Your task to perform on an android device: Empty the shopping cart on walmart. Search for "logitech g pro" on walmart, select the first entry, add it to the cart, then select checkout. Image 0: 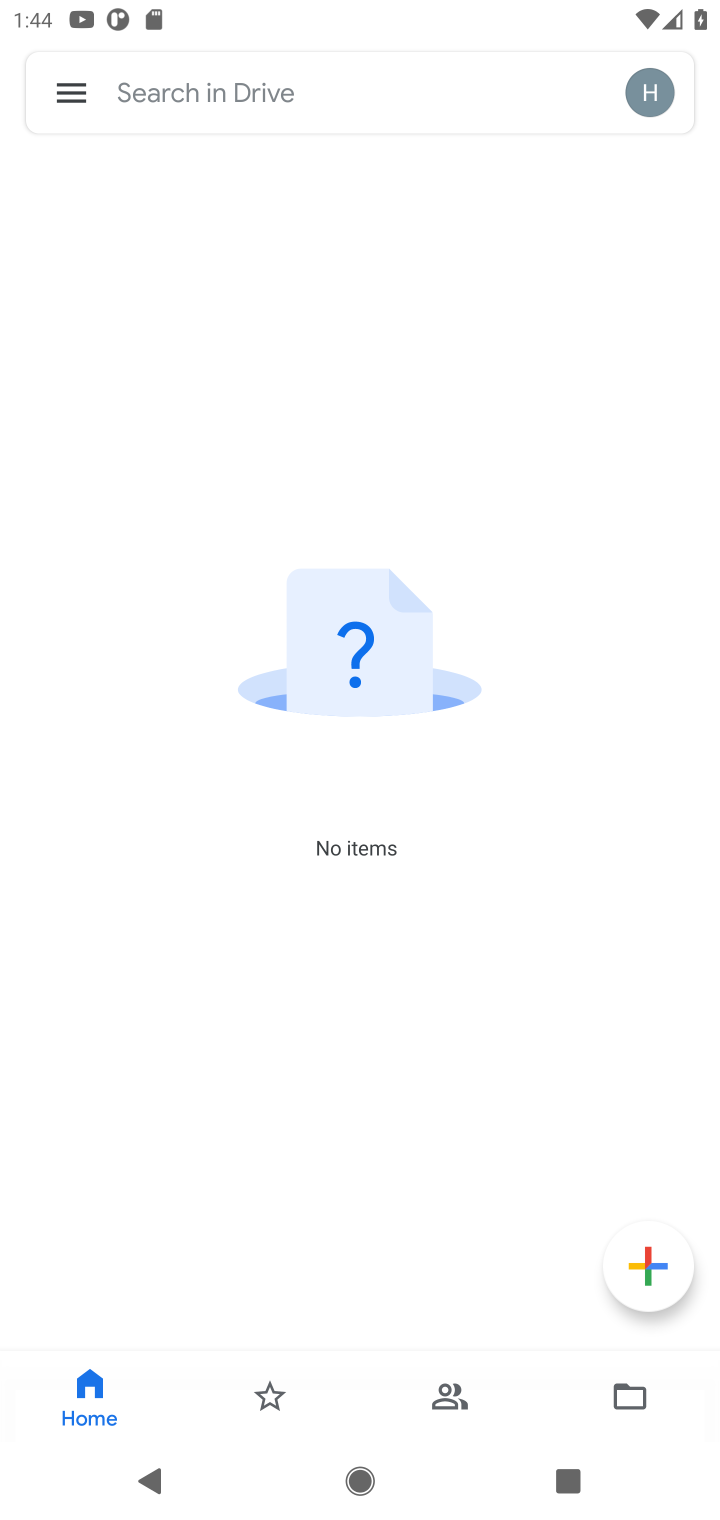
Step 0: press home button
Your task to perform on an android device: Empty the shopping cart on walmart. Search for "logitech g pro" on walmart, select the first entry, add it to the cart, then select checkout. Image 1: 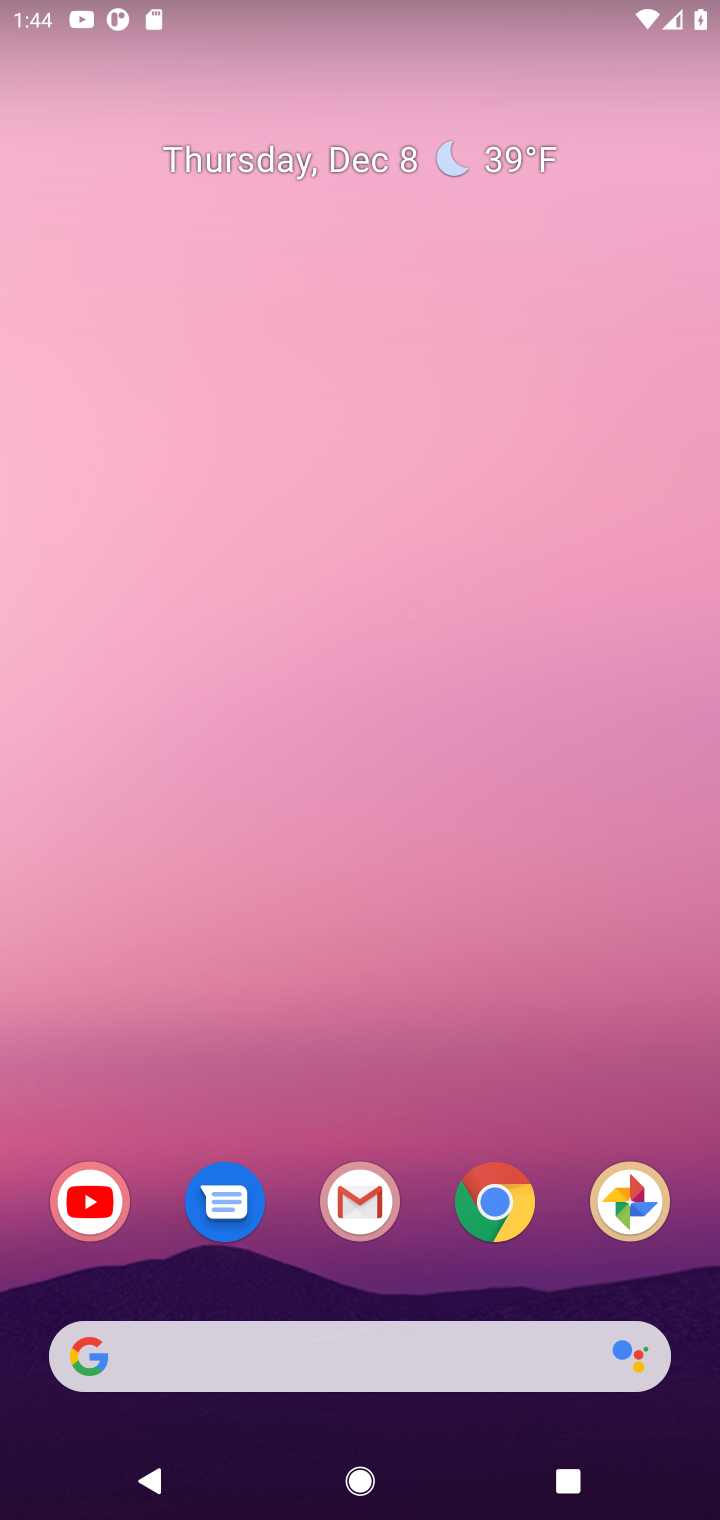
Step 1: click (499, 1201)
Your task to perform on an android device: Empty the shopping cart on walmart. Search for "logitech g pro" on walmart, select the first entry, add it to the cart, then select checkout. Image 2: 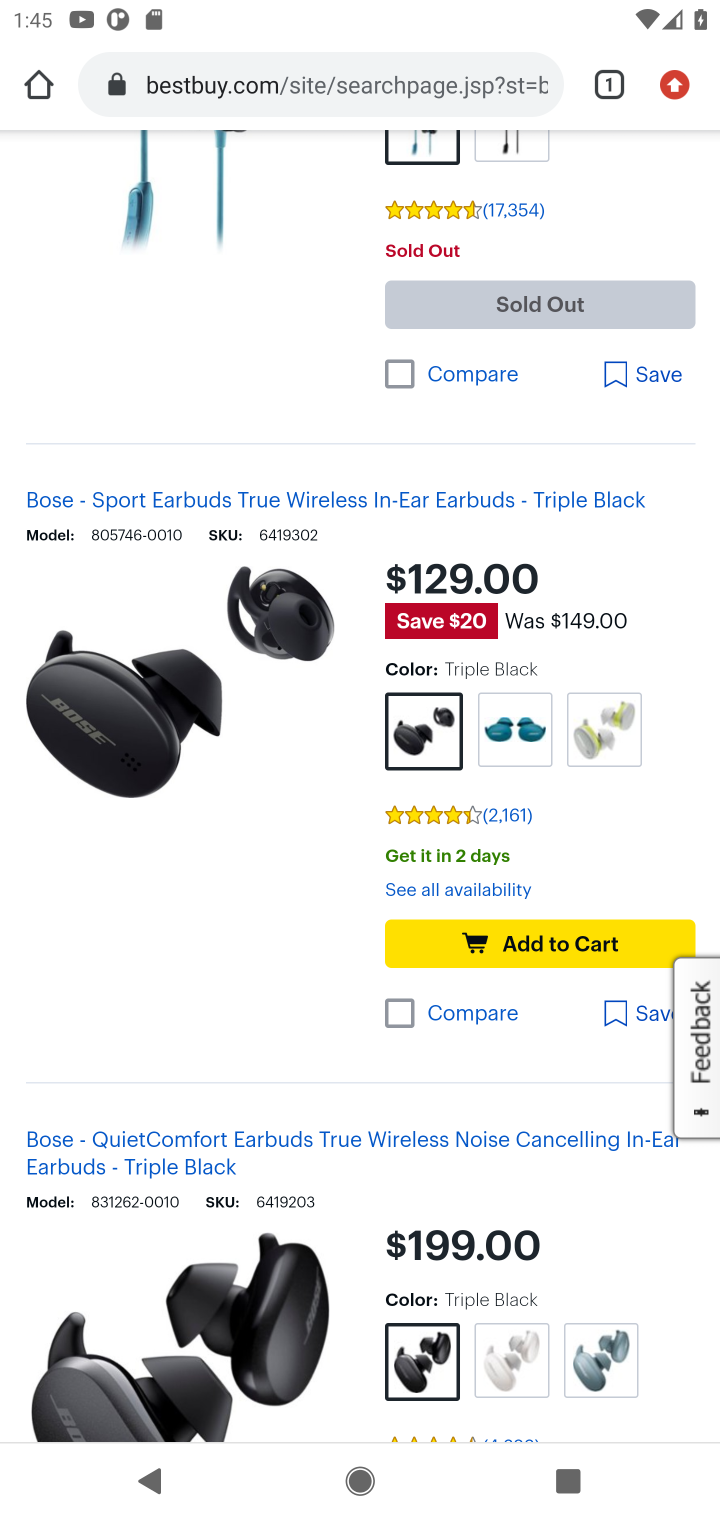
Step 2: click (293, 81)
Your task to perform on an android device: Empty the shopping cart on walmart. Search for "logitech g pro" on walmart, select the first entry, add it to the cart, then select checkout. Image 3: 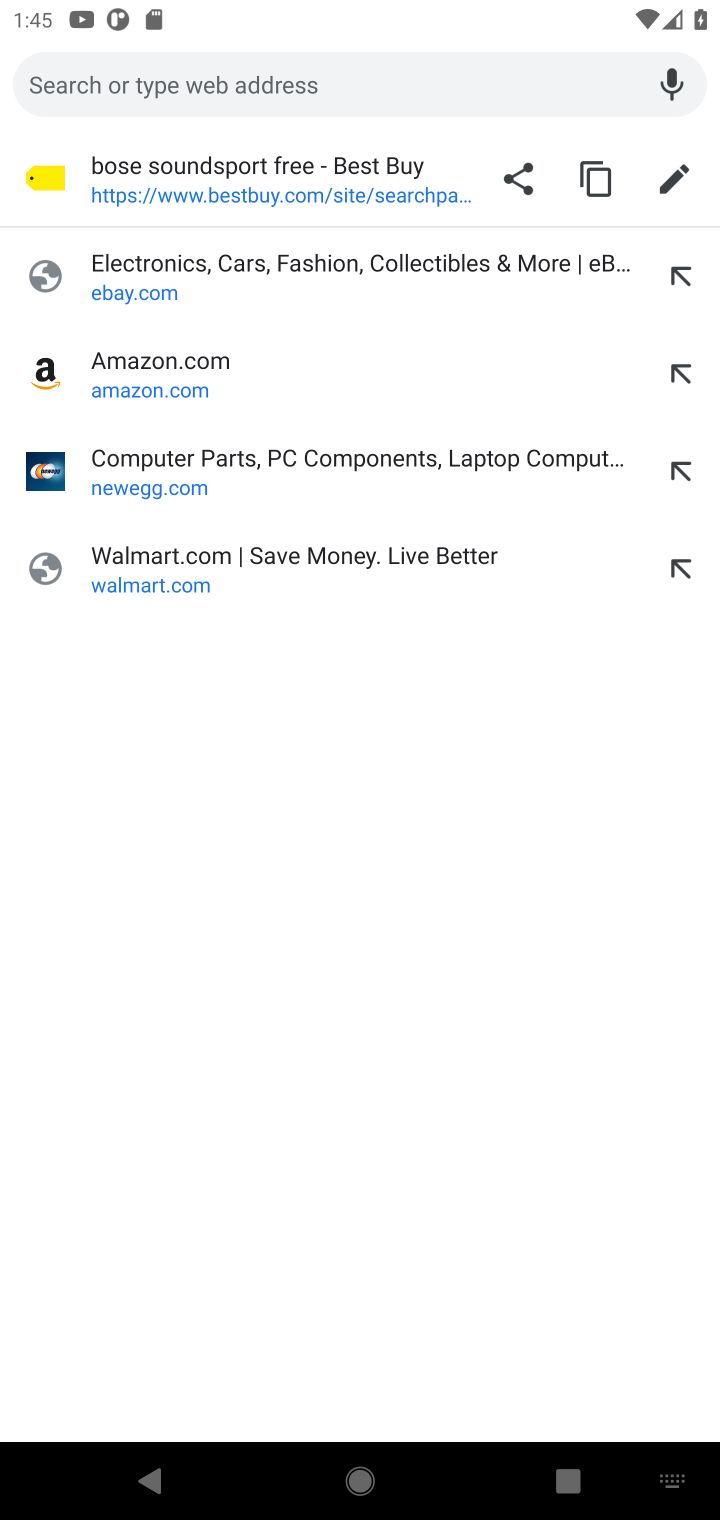
Step 3: click (269, 544)
Your task to perform on an android device: Empty the shopping cart on walmart. Search for "logitech g pro" on walmart, select the first entry, add it to the cart, then select checkout. Image 4: 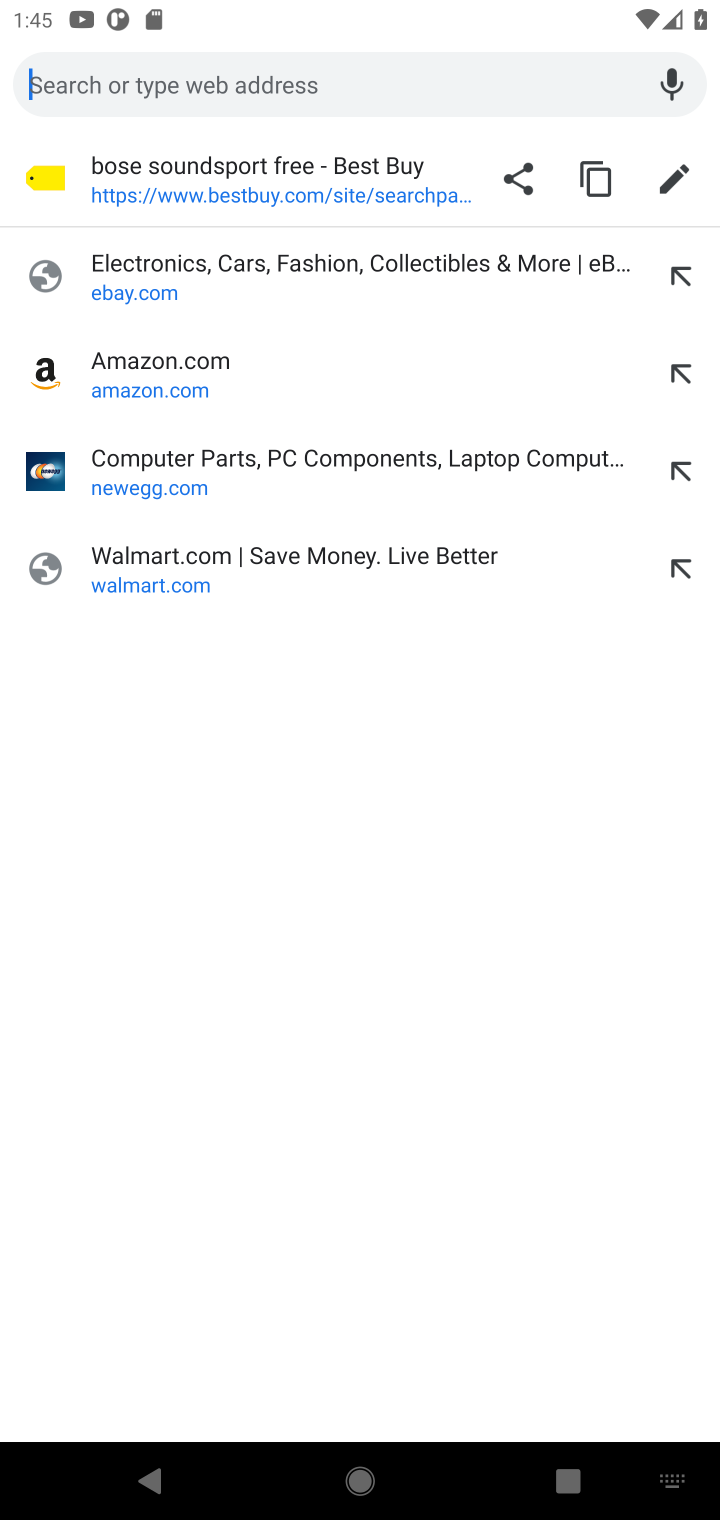
Step 4: click (194, 546)
Your task to perform on an android device: Empty the shopping cart on walmart. Search for "logitech g pro" on walmart, select the first entry, add it to the cart, then select checkout. Image 5: 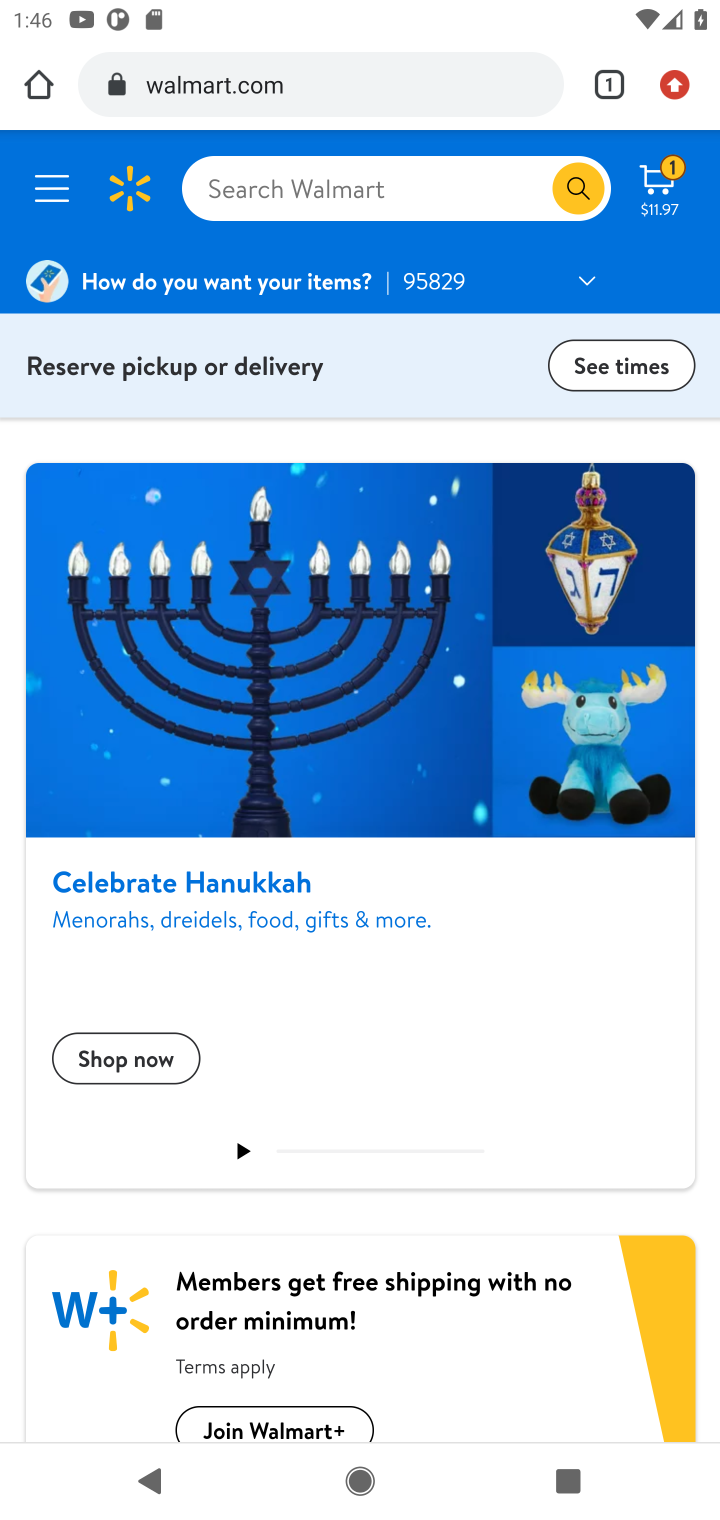
Step 5: click (665, 199)
Your task to perform on an android device: Empty the shopping cart on walmart. Search for "logitech g pro" on walmart, select the first entry, add it to the cart, then select checkout. Image 6: 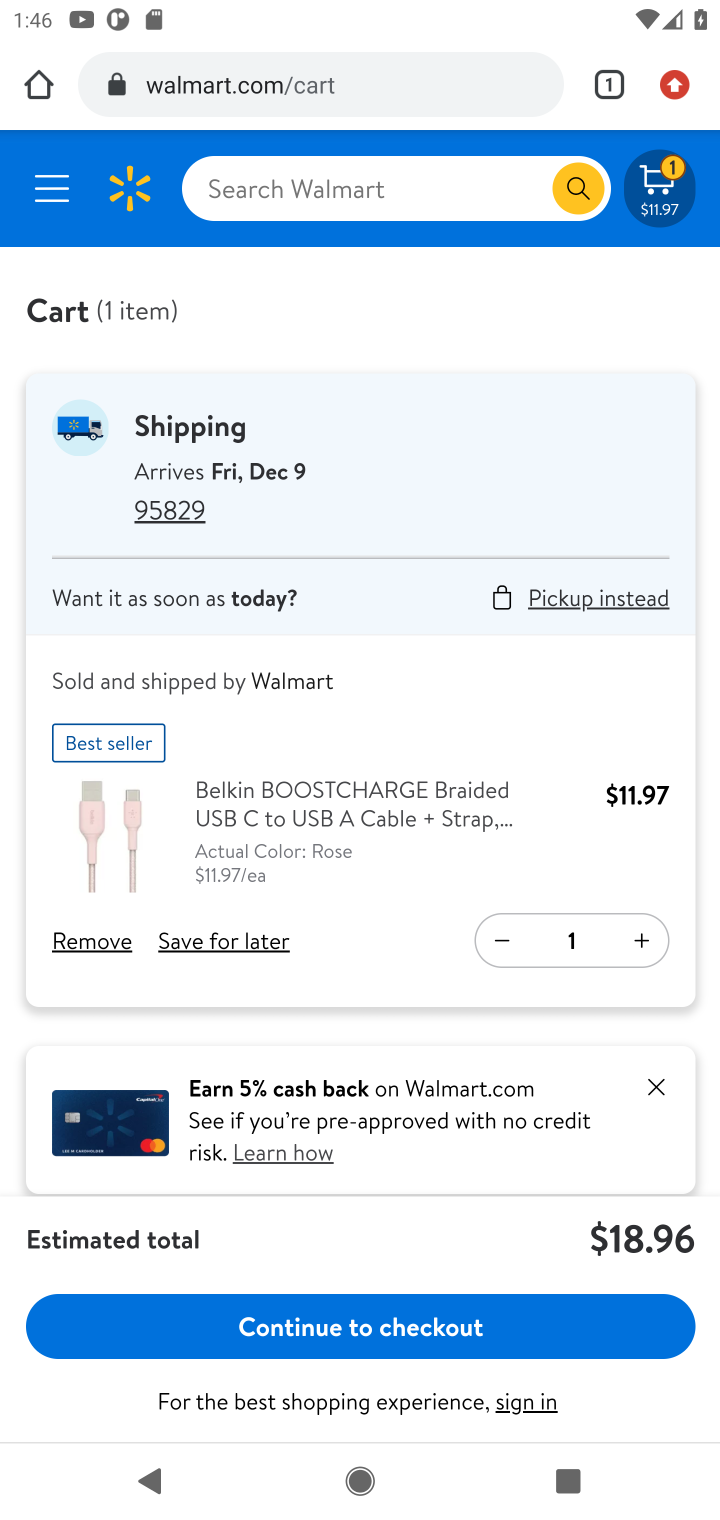
Step 6: click (105, 941)
Your task to perform on an android device: Empty the shopping cart on walmart. Search for "logitech g pro" on walmart, select the first entry, add it to the cart, then select checkout. Image 7: 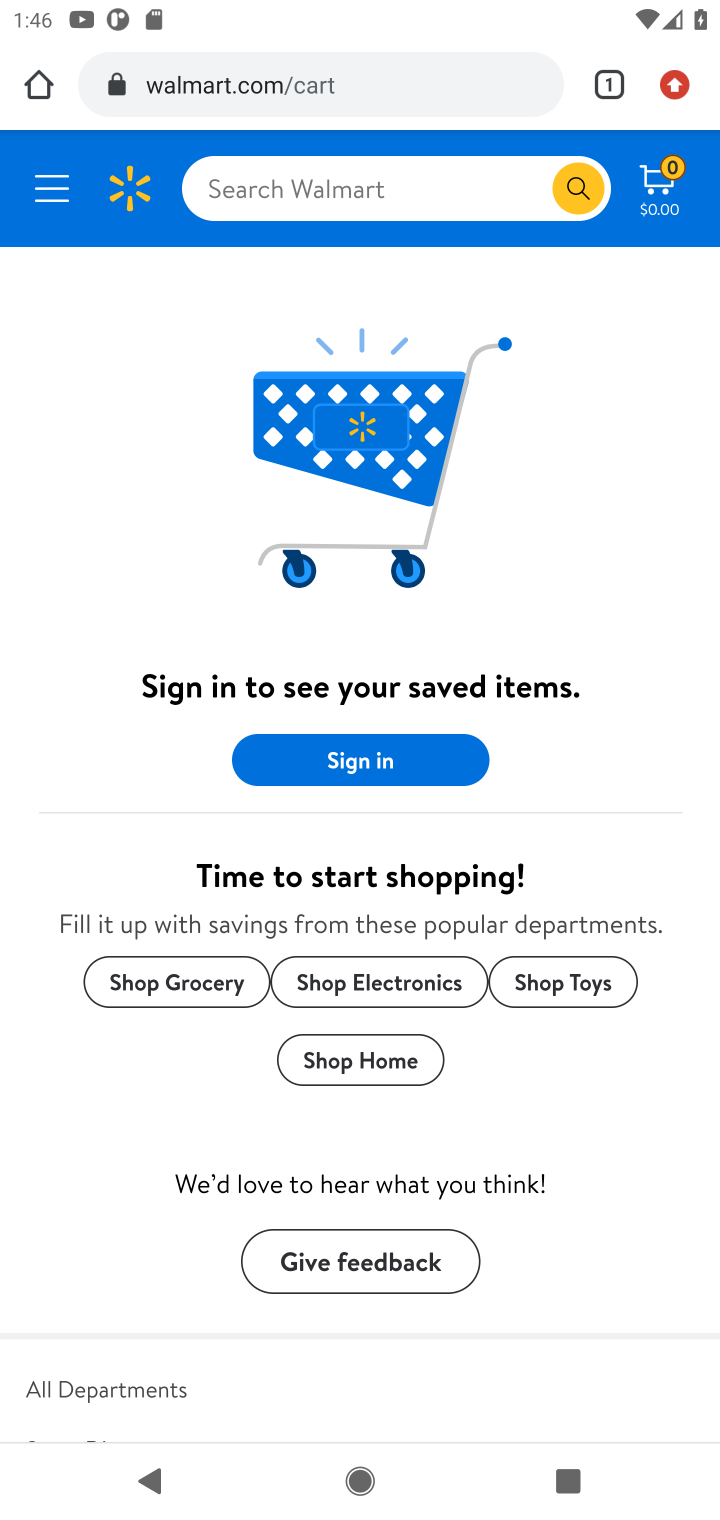
Step 7: click (389, 170)
Your task to perform on an android device: Empty the shopping cart on walmart. Search for "logitech g pro" on walmart, select the first entry, add it to the cart, then select checkout. Image 8: 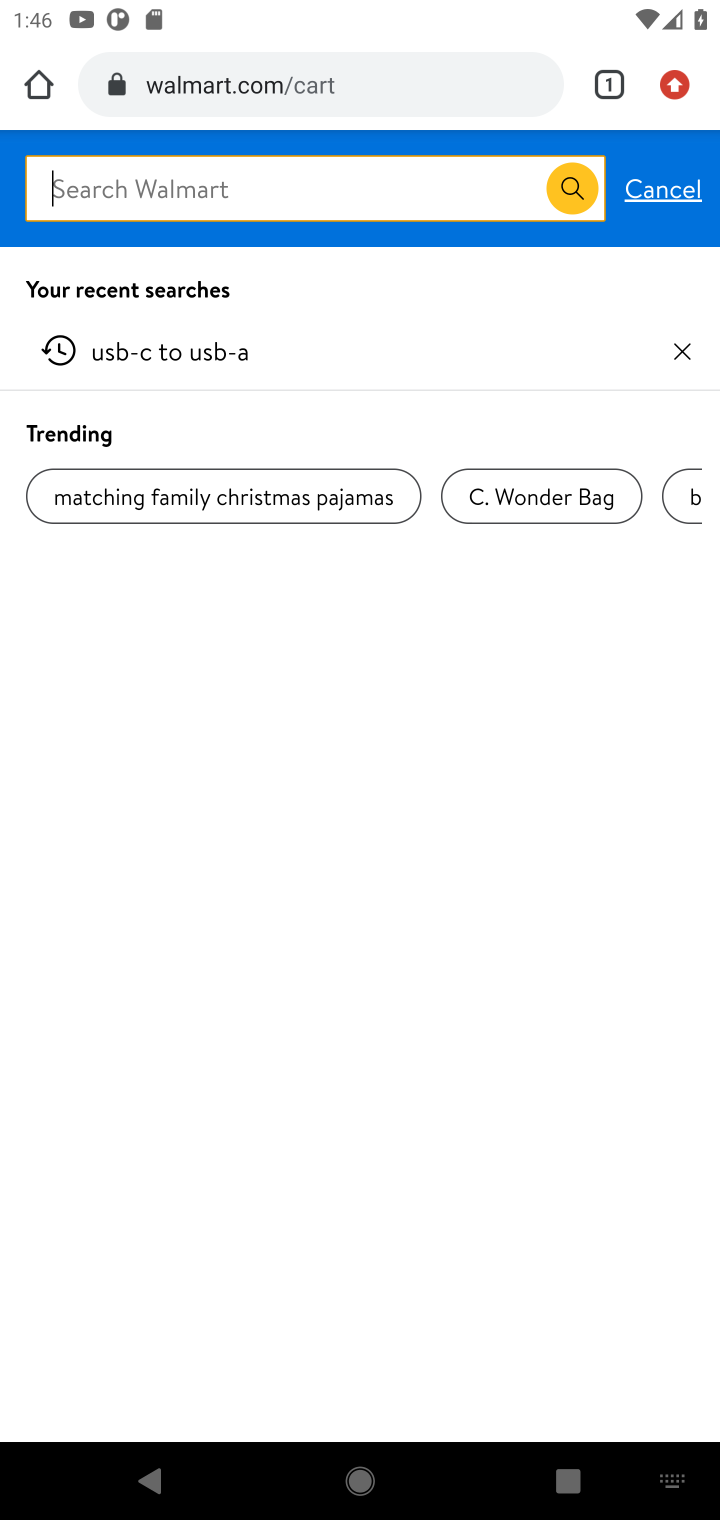
Step 8: type "logitech g pro"
Your task to perform on an android device: Empty the shopping cart on walmart. Search for "logitech g pro" on walmart, select the first entry, add it to the cart, then select checkout. Image 9: 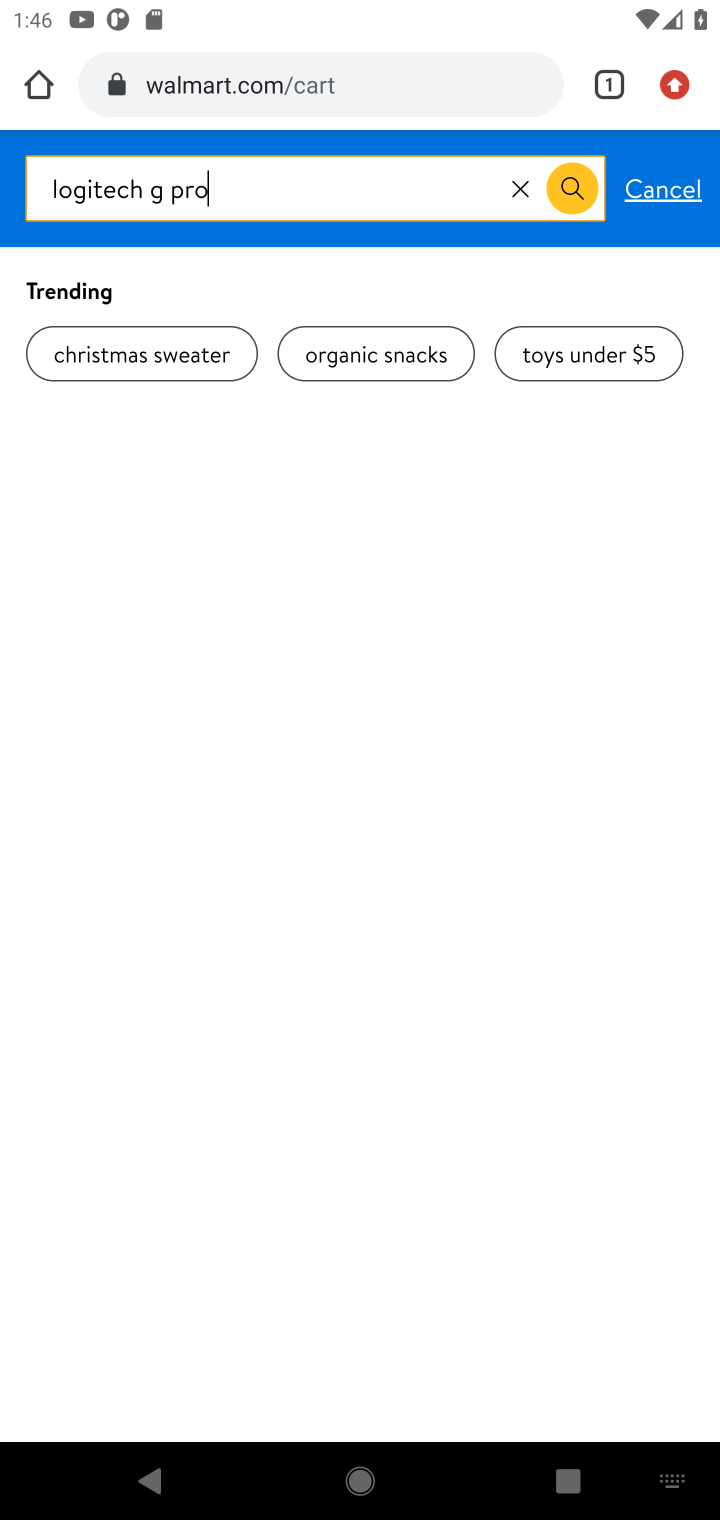
Step 9: press enter
Your task to perform on an android device: Empty the shopping cart on walmart. Search for "logitech g pro" on walmart, select the first entry, add it to the cart, then select checkout. Image 10: 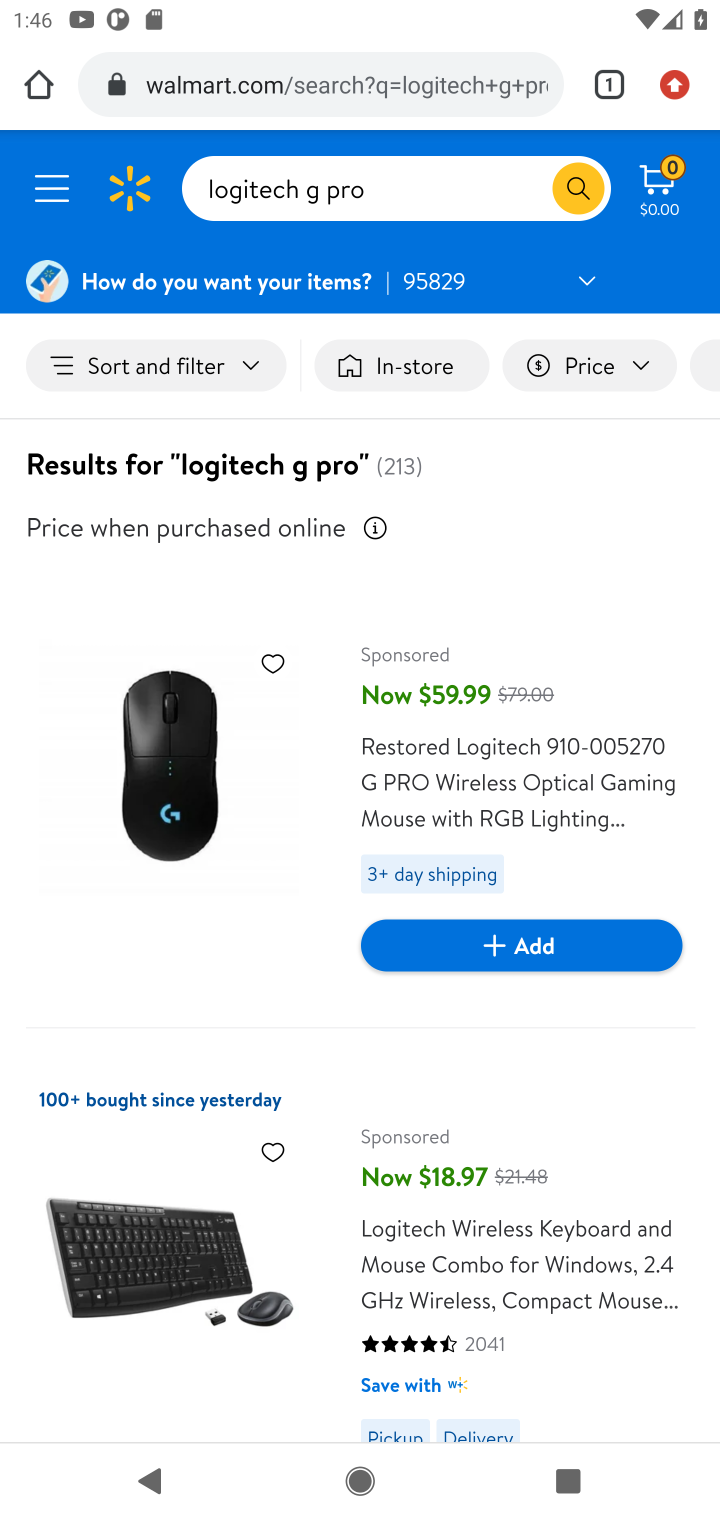
Step 10: drag from (629, 1133) to (609, 695)
Your task to perform on an android device: Empty the shopping cart on walmart. Search for "logitech g pro" on walmart, select the first entry, add it to the cart, then select checkout. Image 11: 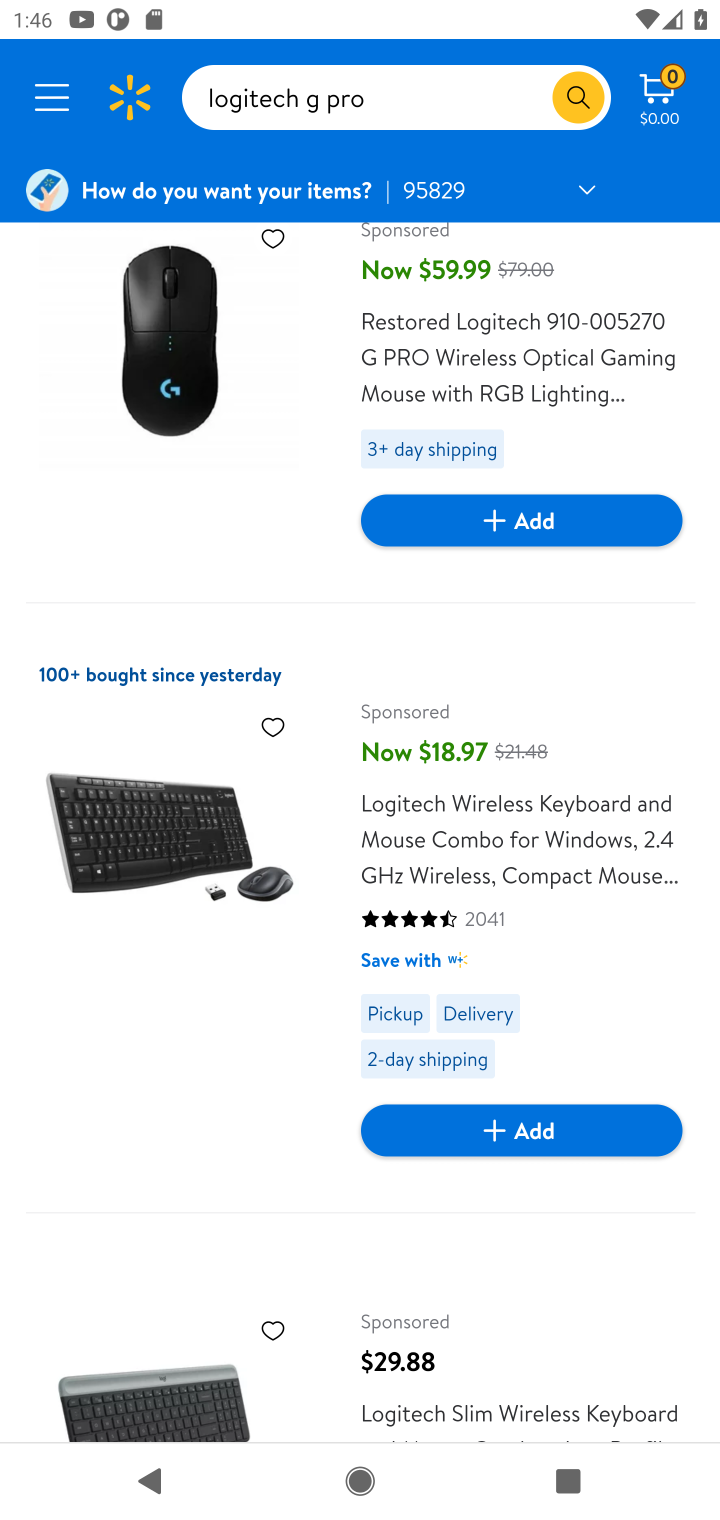
Step 11: drag from (624, 1280) to (622, 889)
Your task to perform on an android device: Empty the shopping cart on walmart. Search for "logitech g pro" on walmart, select the first entry, add it to the cart, then select checkout. Image 12: 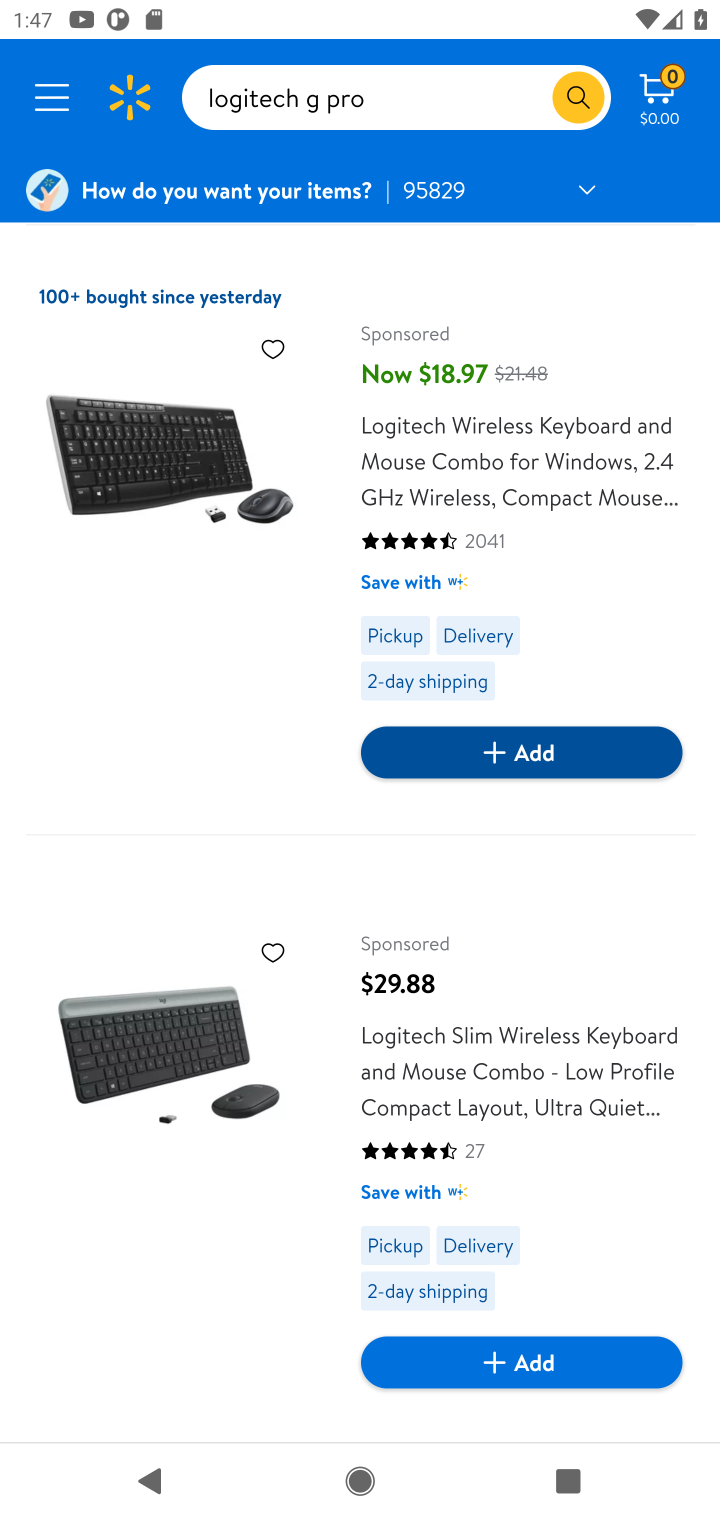
Step 12: drag from (627, 1132) to (624, 635)
Your task to perform on an android device: Empty the shopping cart on walmart. Search for "logitech g pro" on walmart, select the first entry, add it to the cart, then select checkout. Image 13: 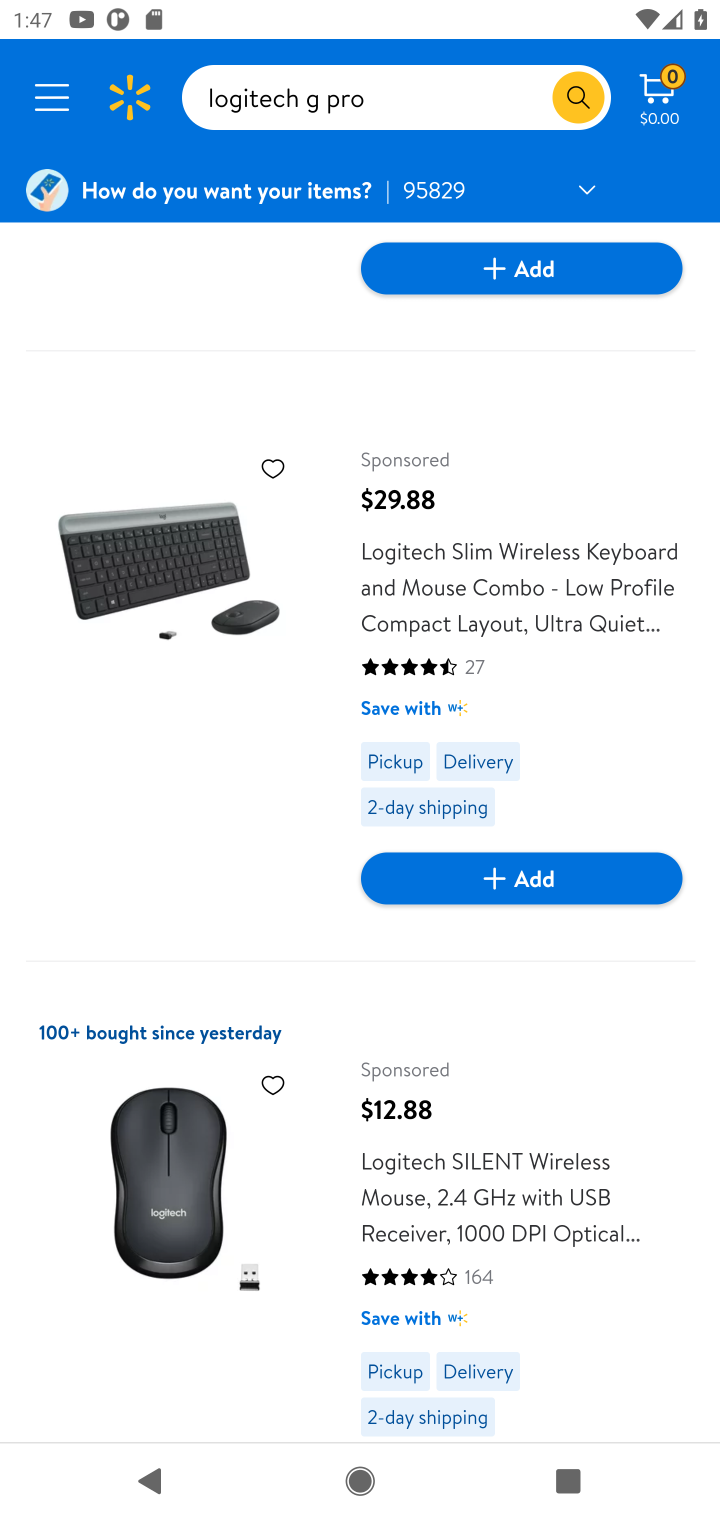
Step 13: drag from (580, 1240) to (530, 430)
Your task to perform on an android device: Empty the shopping cart on walmart. Search for "logitech g pro" on walmart, select the first entry, add it to the cart, then select checkout. Image 14: 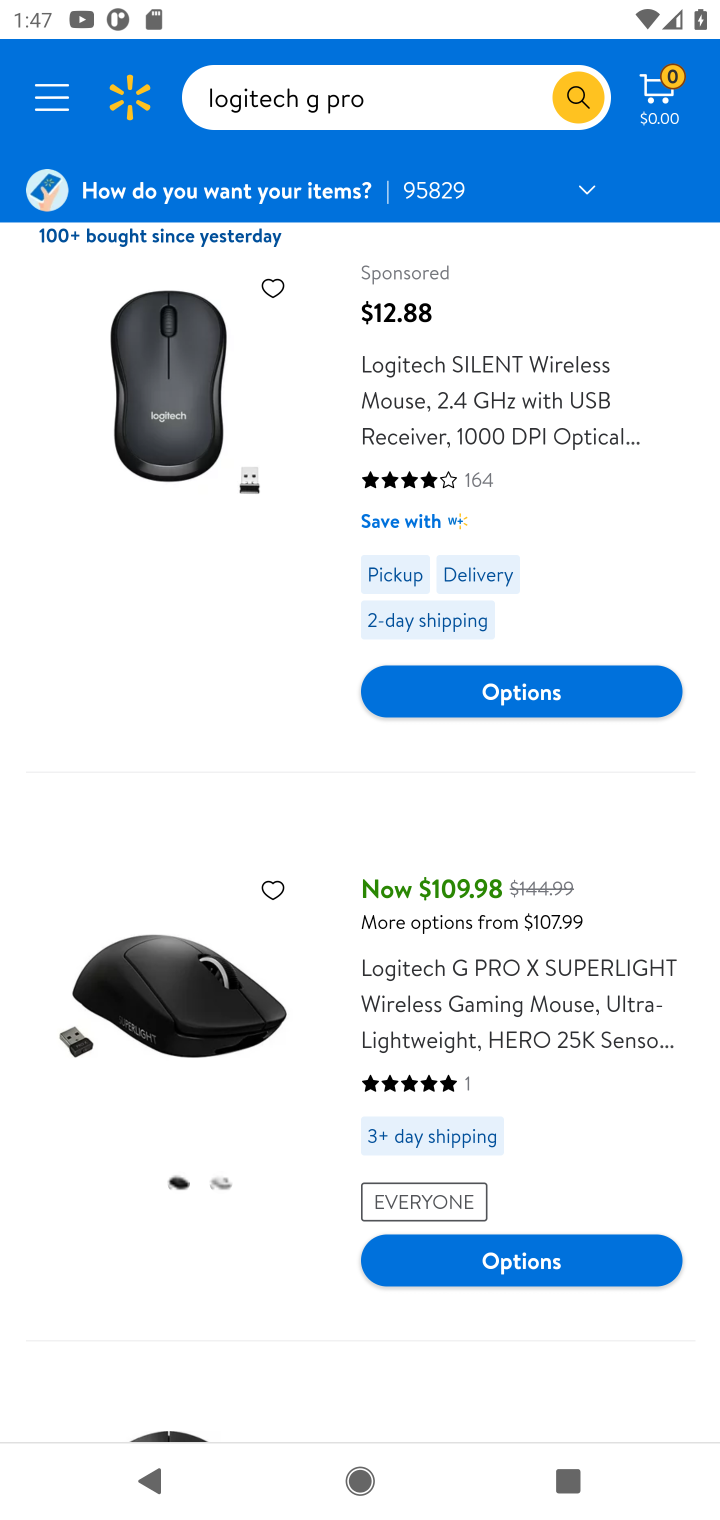
Step 14: click (240, 1023)
Your task to perform on an android device: Empty the shopping cart on walmart. Search for "logitech g pro" on walmart, select the first entry, add it to the cart, then select checkout. Image 15: 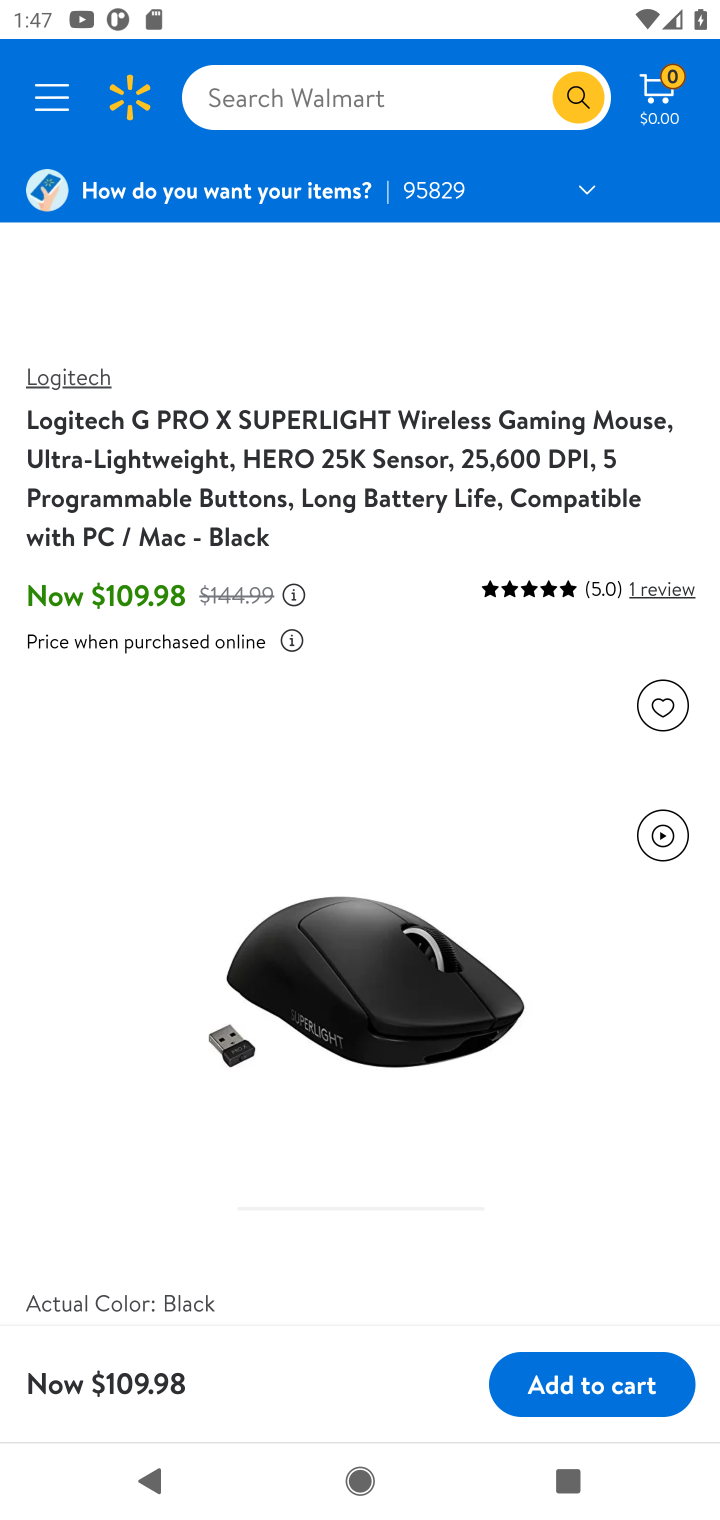
Step 15: click (588, 1376)
Your task to perform on an android device: Empty the shopping cart on walmart. Search for "logitech g pro" on walmart, select the first entry, add it to the cart, then select checkout. Image 16: 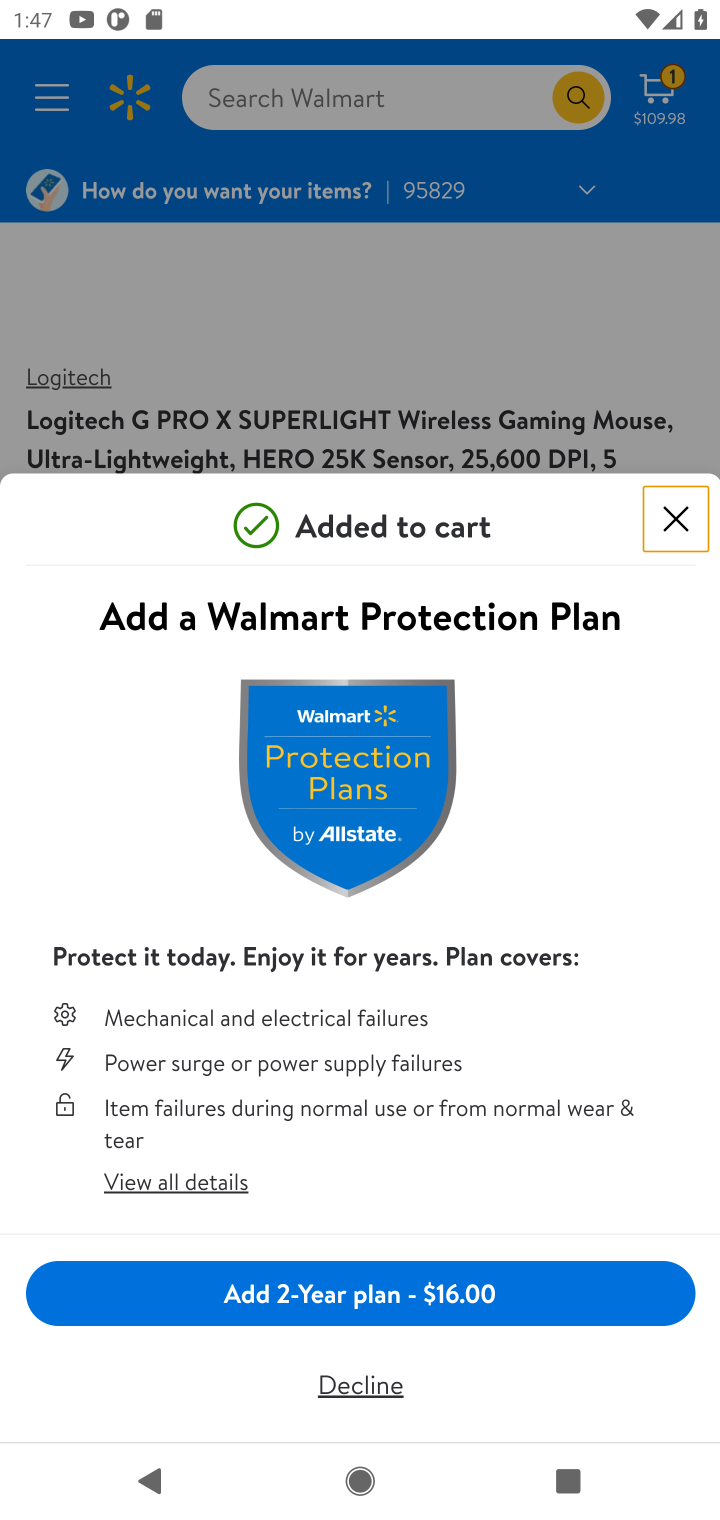
Step 16: click (690, 528)
Your task to perform on an android device: Empty the shopping cart on walmart. Search for "logitech g pro" on walmart, select the first entry, add it to the cart, then select checkout. Image 17: 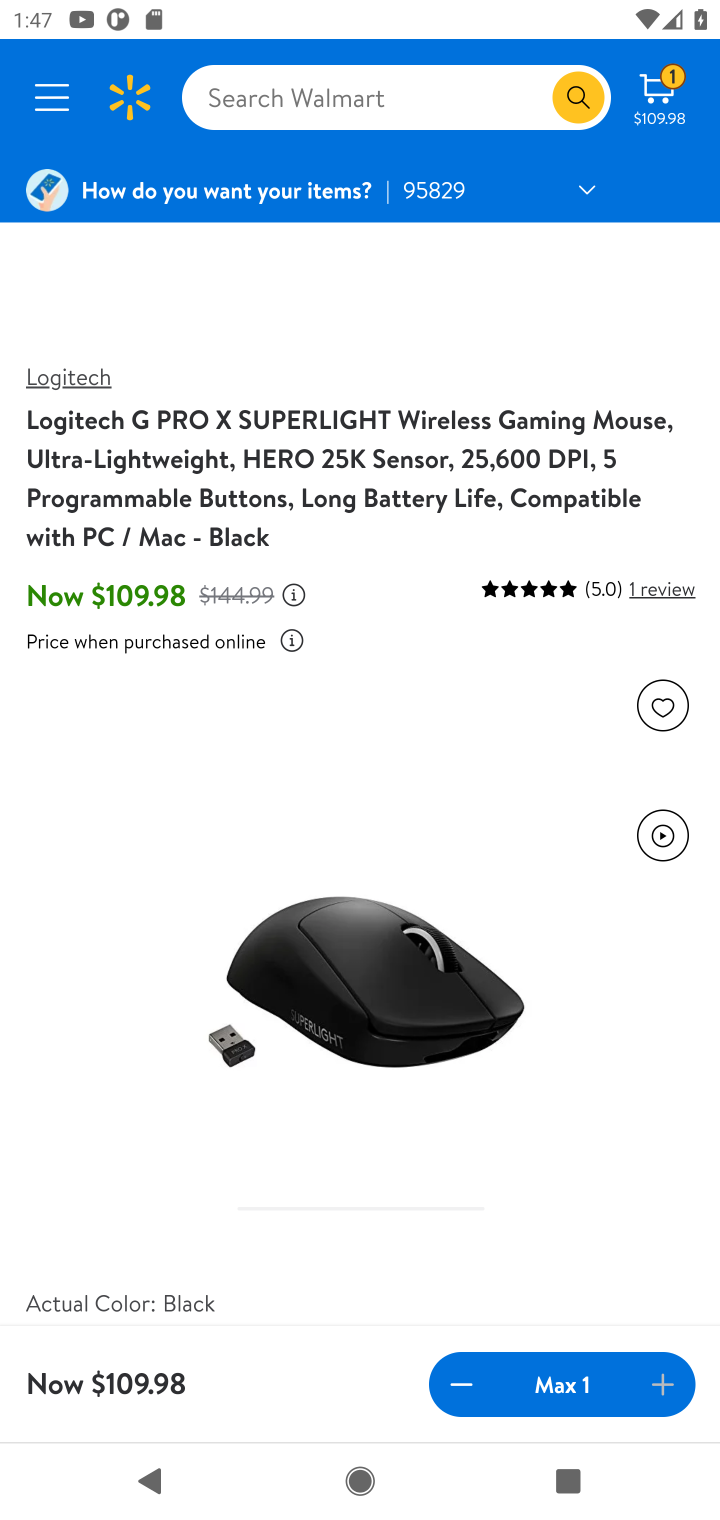
Step 17: click (666, 102)
Your task to perform on an android device: Empty the shopping cart on walmart. Search for "logitech g pro" on walmart, select the first entry, add it to the cart, then select checkout. Image 18: 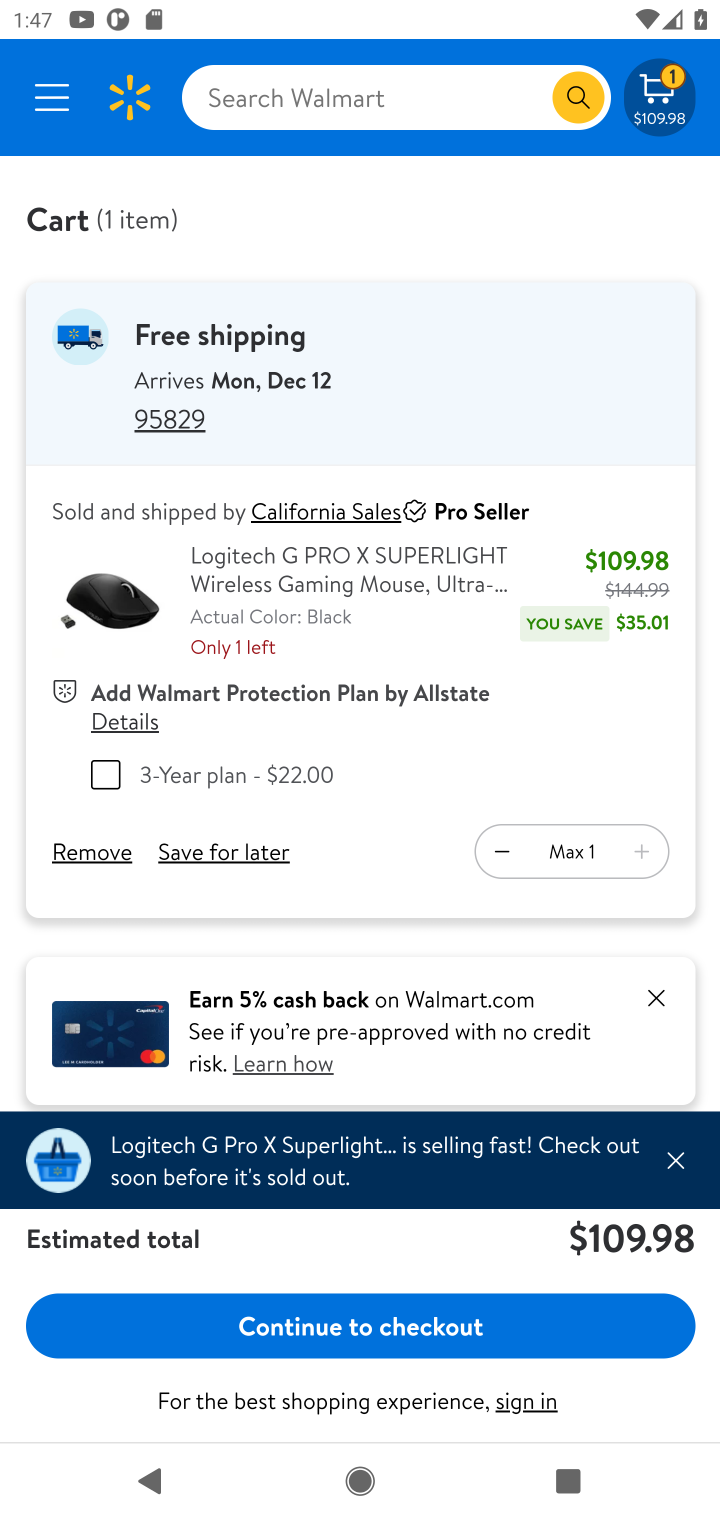
Step 18: click (407, 1315)
Your task to perform on an android device: Empty the shopping cart on walmart. Search for "logitech g pro" on walmart, select the first entry, add it to the cart, then select checkout. Image 19: 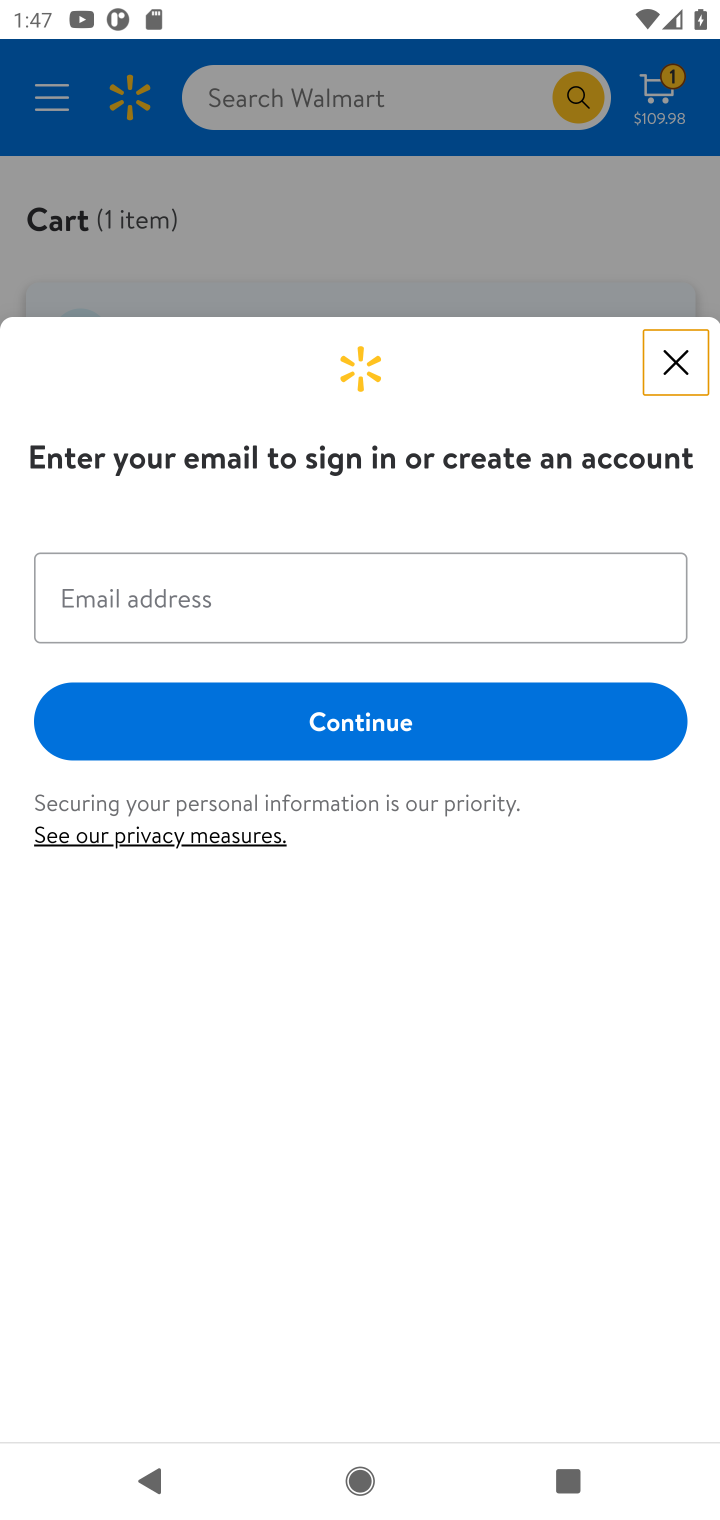
Step 19: task complete